Your task to perform on an android device: change text size in settings app Image 0: 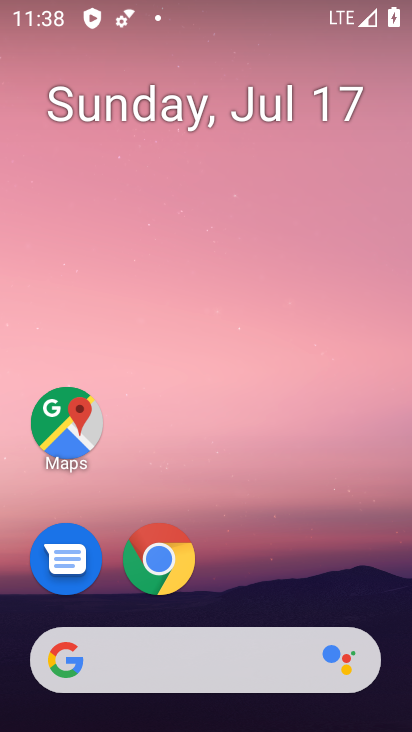
Step 0: drag from (246, 591) to (309, 14)
Your task to perform on an android device: change text size in settings app Image 1: 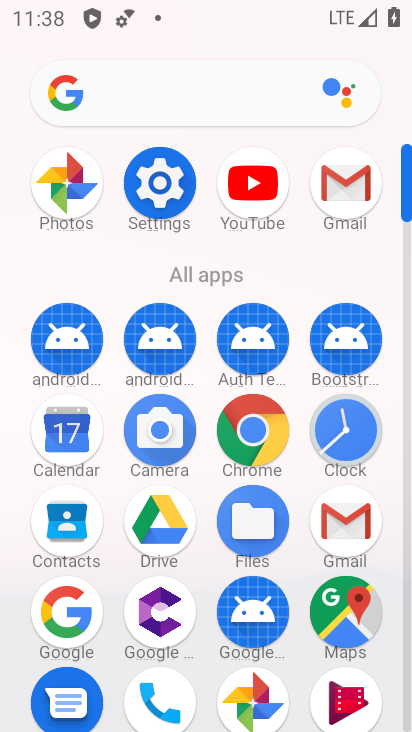
Step 1: click (163, 179)
Your task to perform on an android device: change text size in settings app Image 2: 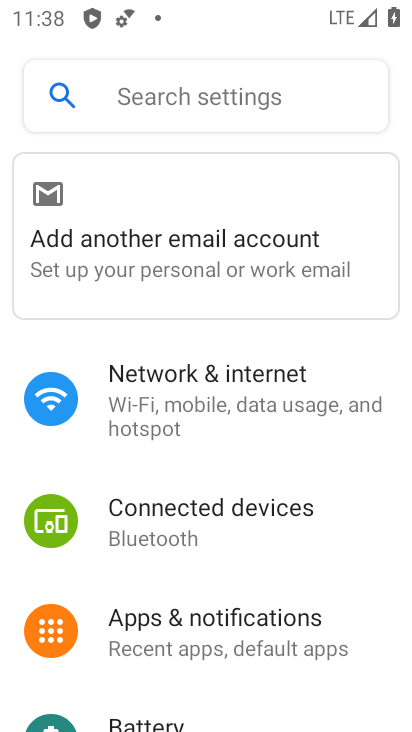
Step 2: click (165, 96)
Your task to perform on an android device: change text size in settings app Image 3: 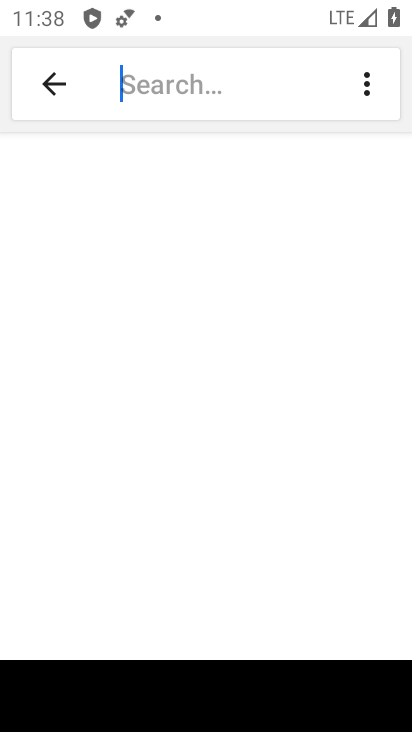
Step 3: type "text size"
Your task to perform on an android device: change text size in settings app Image 4: 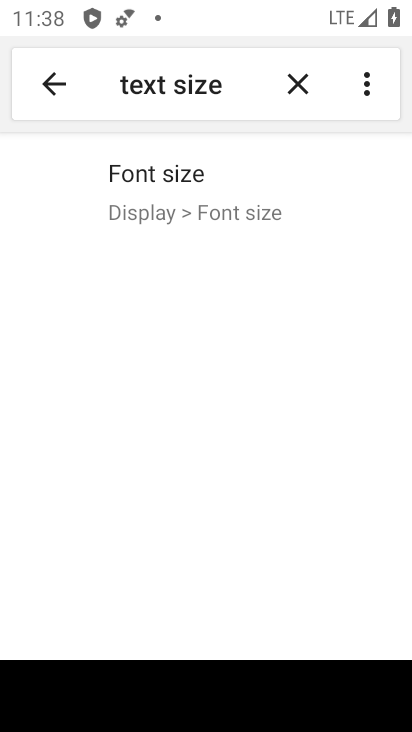
Step 4: click (190, 184)
Your task to perform on an android device: change text size in settings app Image 5: 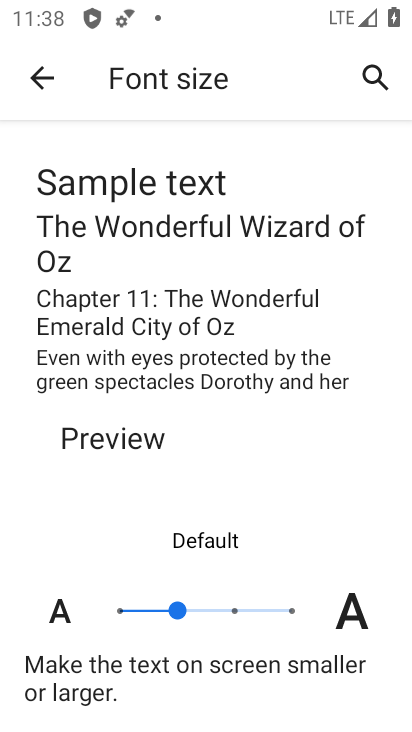
Step 5: task complete